Your task to perform on an android device: install app "Paramount+ | Peak Streaming" Image 0: 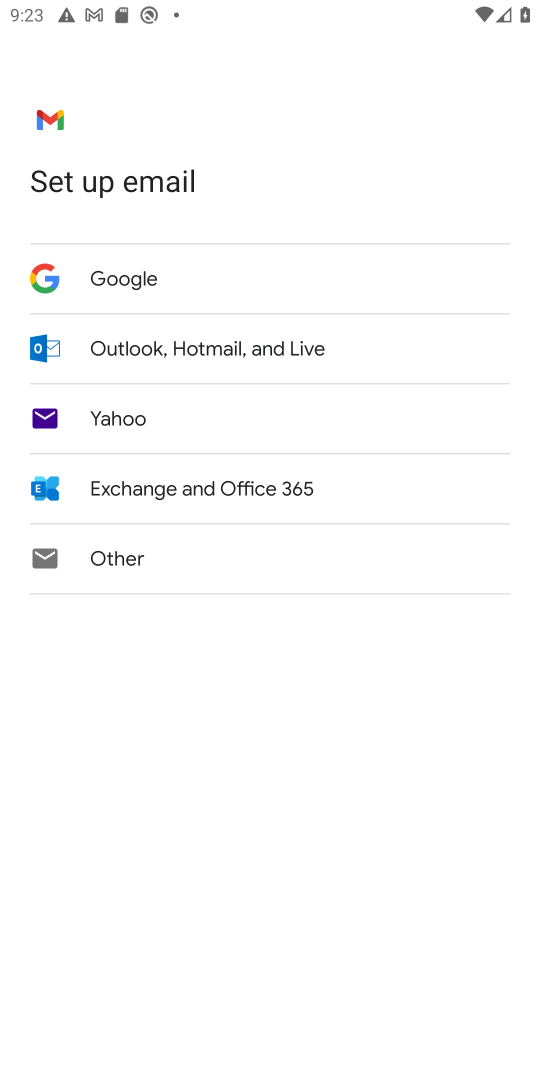
Step 0: press home button
Your task to perform on an android device: install app "Paramount+ | Peak Streaming" Image 1: 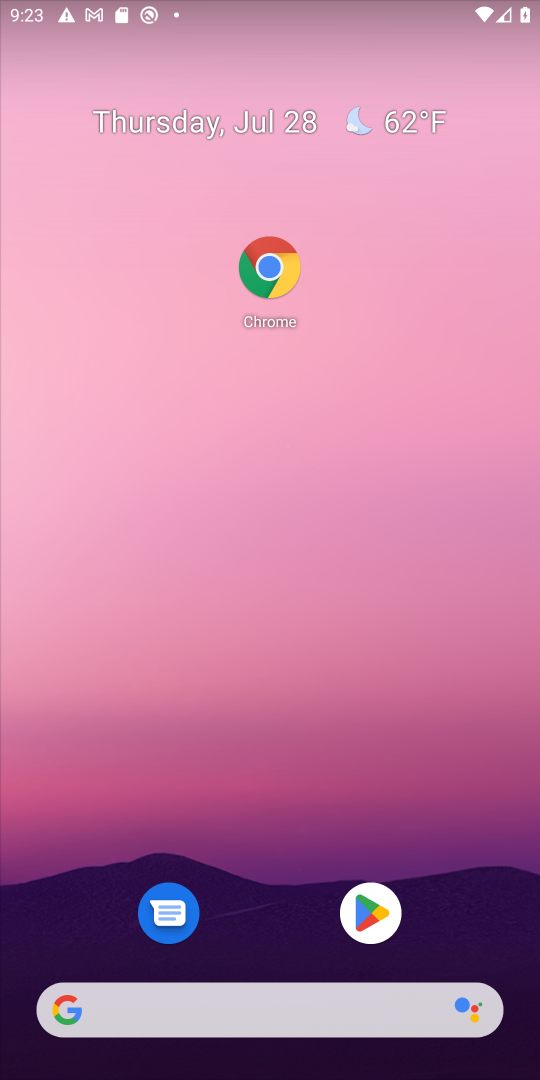
Step 1: drag from (435, 1030) to (306, 226)
Your task to perform on an android device: install app "Paramount+ | Peak Streaming" Image 2: 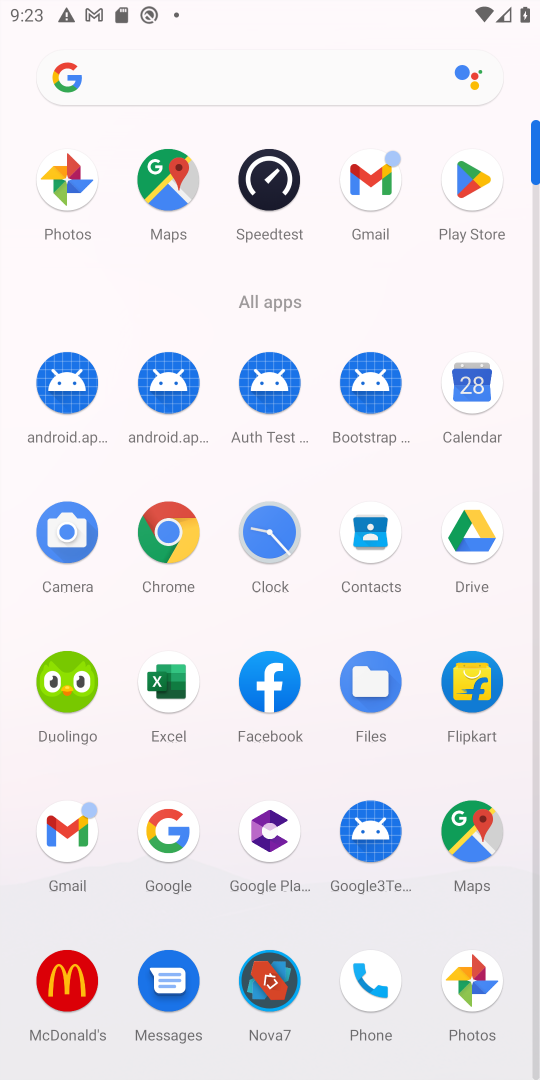
Step 2: click (475, 199)
Your task to perform on an android device: install app "Paramount+ | Peak Streaming" Image 3: 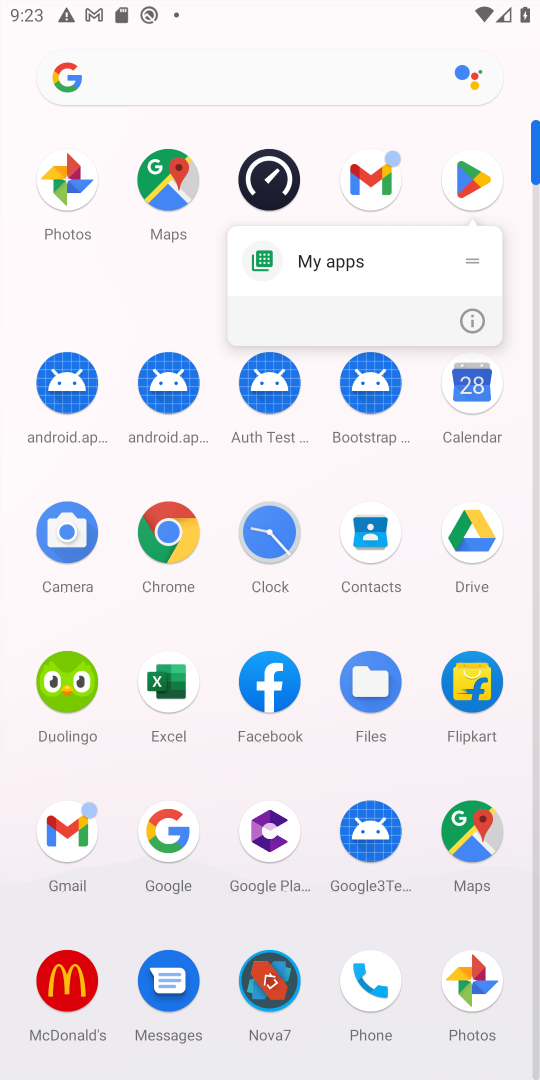
Step 3: click (458, 193)
Your task to perform on an android device: install app "Paramount+ | Peak Streaming" Image 4: 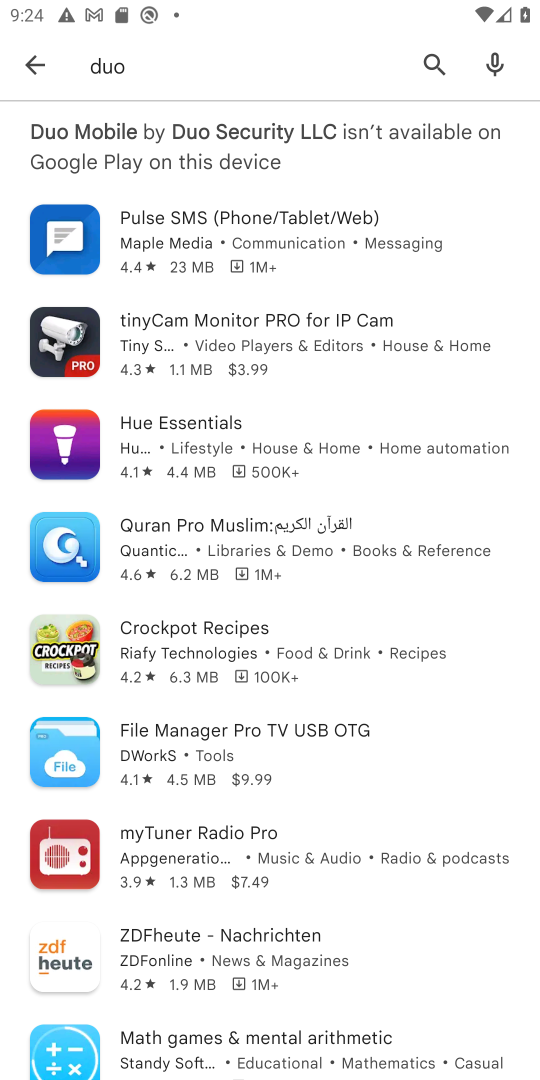
Step 4: click (435, 68)
Your task to perform on an android device: install app "Paramount+ | Peak Streaming" Image 5: 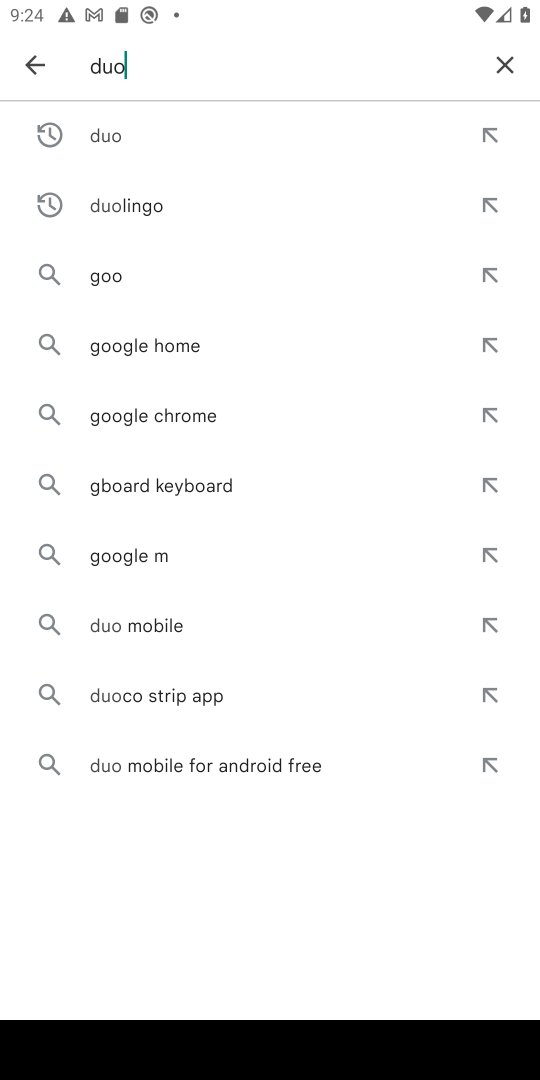
Step 5: click (505, 65)
Your task to perform on an android device: install app "Paramount+ | Peak Streaming" Image 6: 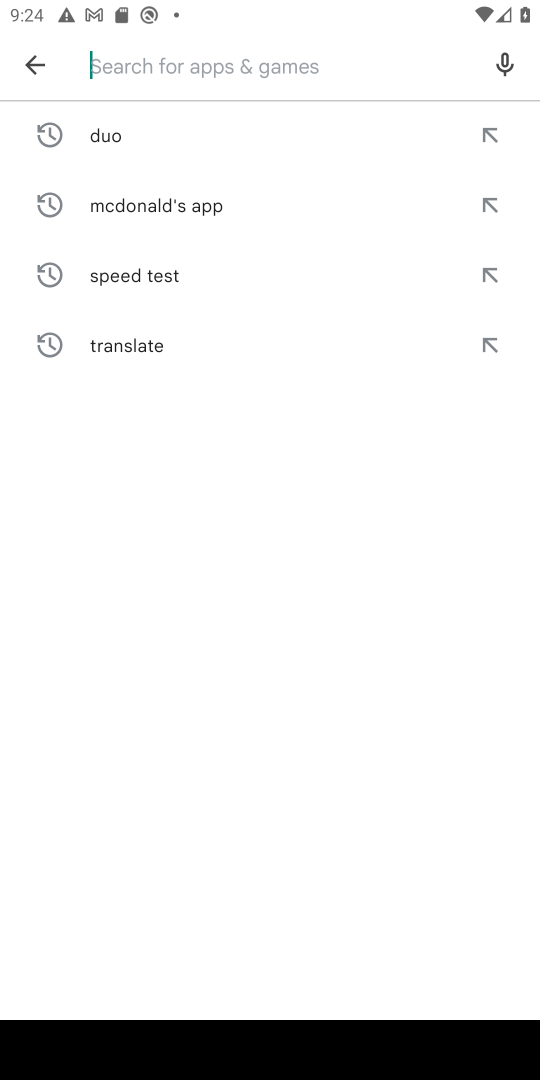
Step 6: type "param"
Your task to perform on an android device: install app "Paramount+ | Peak Streaming" Image 7: 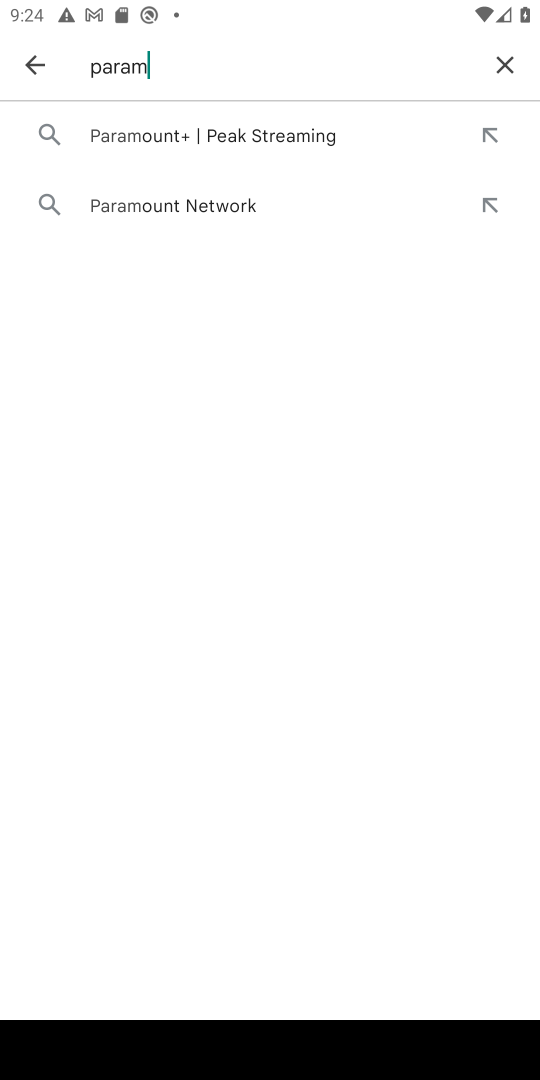
Step 7: click (150, 141)
Your task to perform on an android device: install app "Paramount+ | Peak Streaming" Image 8: 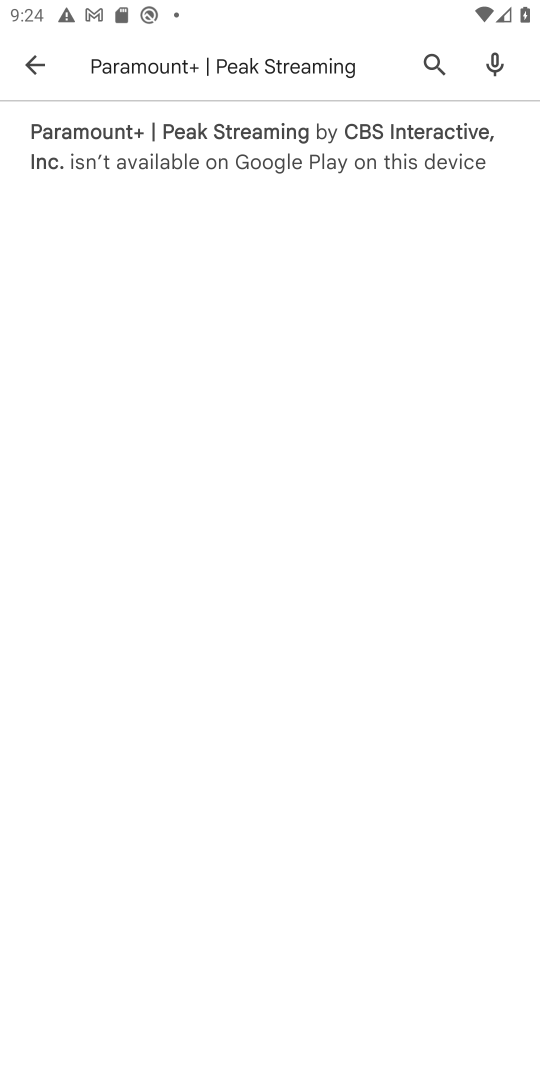
Step 8: click (259, 164)
Your task to perform on an android device: install app "Paramount+ | Peak Streaming" Image 9: 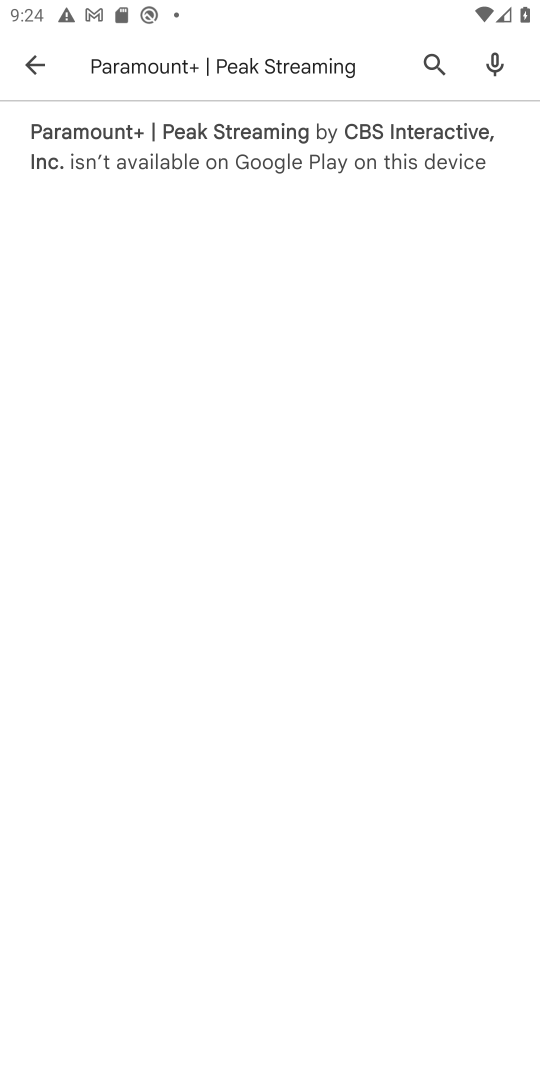
Step 9: click (435, 71)
Your task to perform on an android device: install app "Paramount+ | Peak Streaming" Image 10: 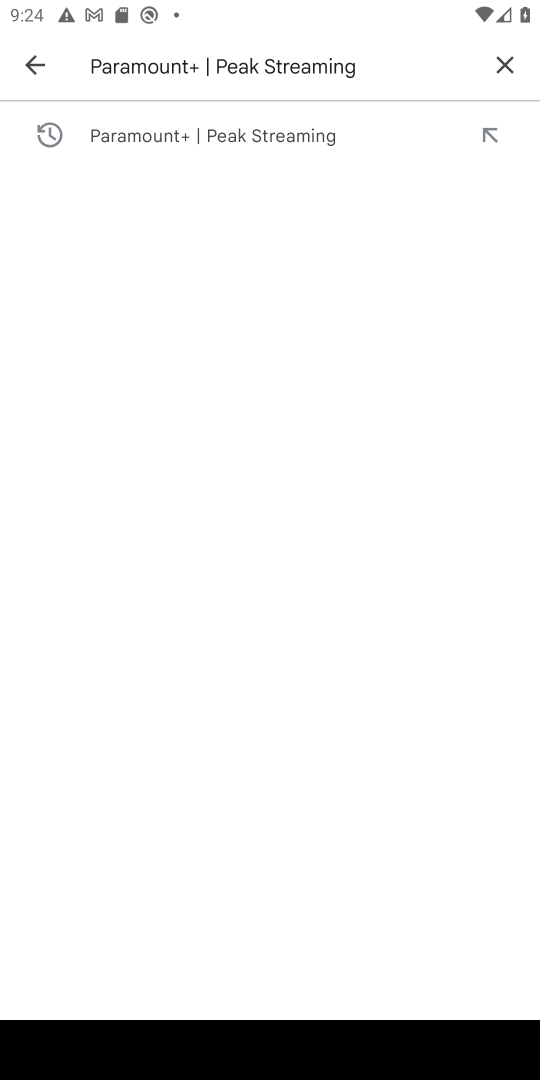
Step 10: click (159, 148)
Your task to perform on an android device: install app "Paramount+ | Peak Streaming" Image 11: 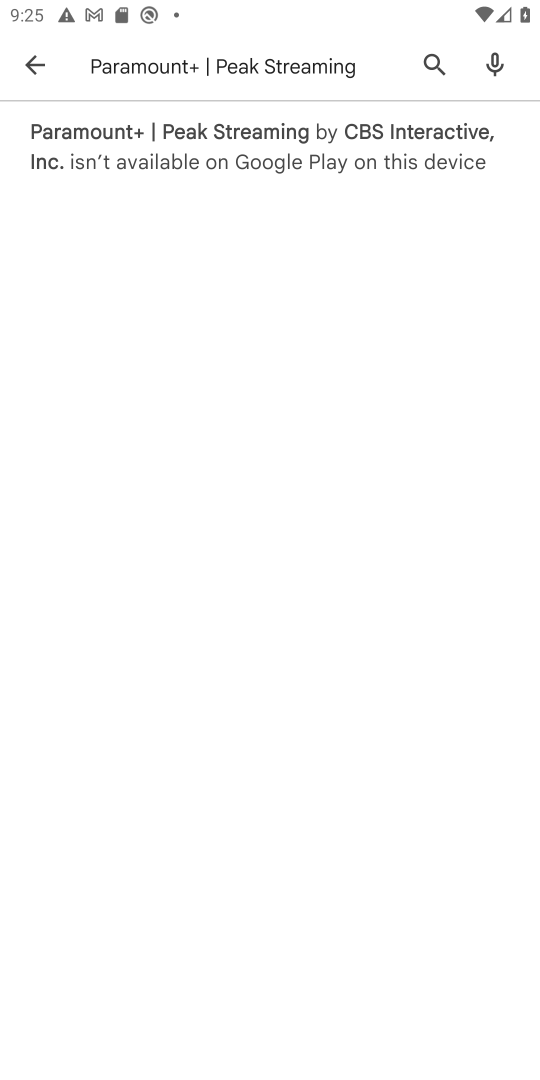
Step 11: task complete